Your task to perform on an android device: Go to CNN.com Image 0: 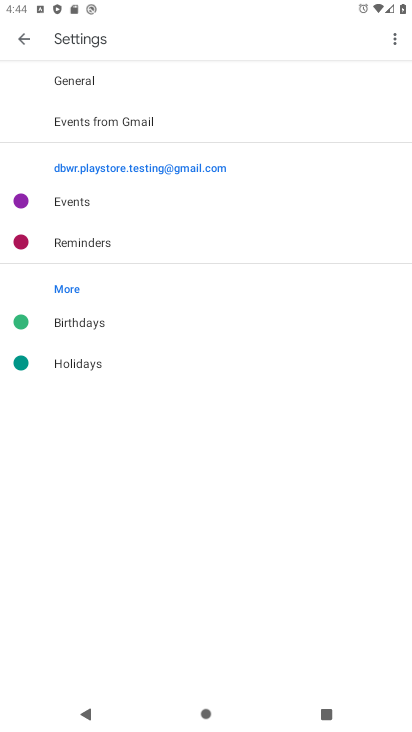
Step 0: press home button
Your task to perform on an android device: Go to CNN.com Image 1: 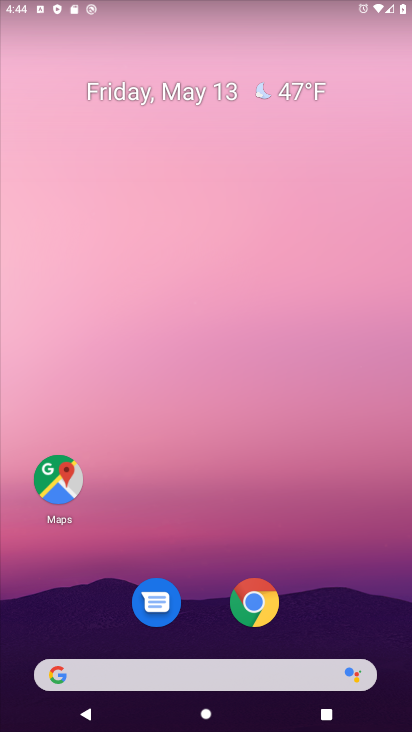
Step 1: drag from (194, 651) to (184, 199)
Your task to perform on an android device: Go to CNN.com Image 2: 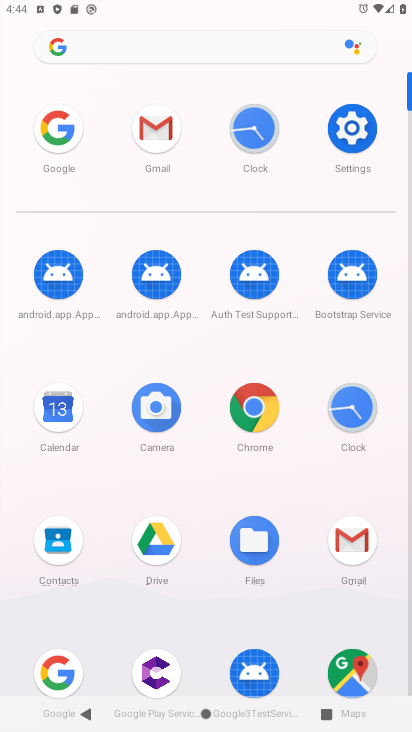
Step 2: click (58, 674)
Your task to perform on an android device: Go to CNN.com Image 3: 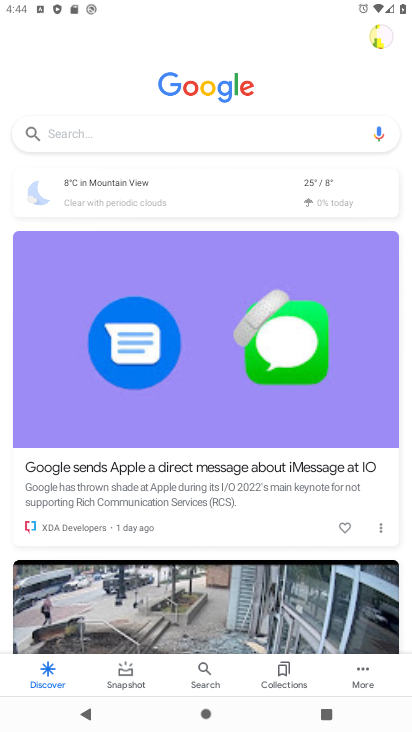
Step 3: click (118, 133)
Your task to perform on an android device: Go to CNN.com Image 4: 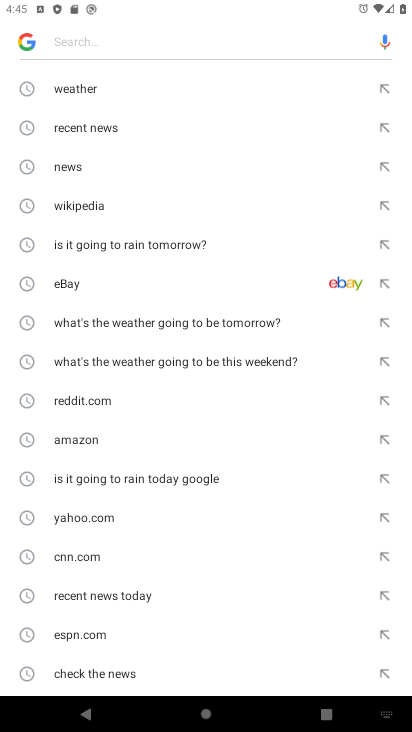
Step 4: drag from (116, 651) to (153, 302)
Your task to perform on an android device: Go to CNN.com Image 5: 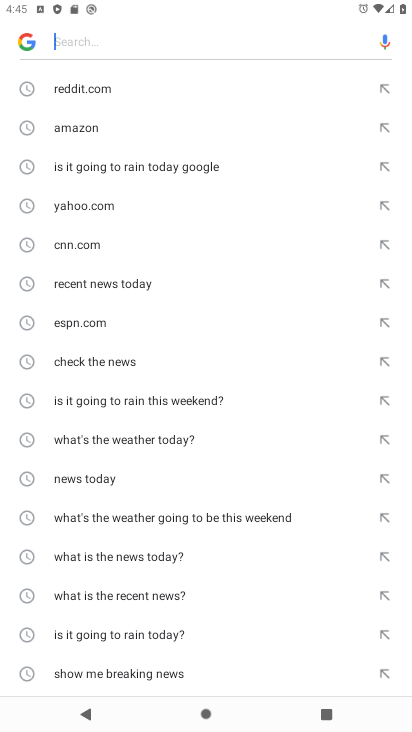
Step 5: click (106, 244)
Your task to perform on an android device: Go to CNN.com Image 6: 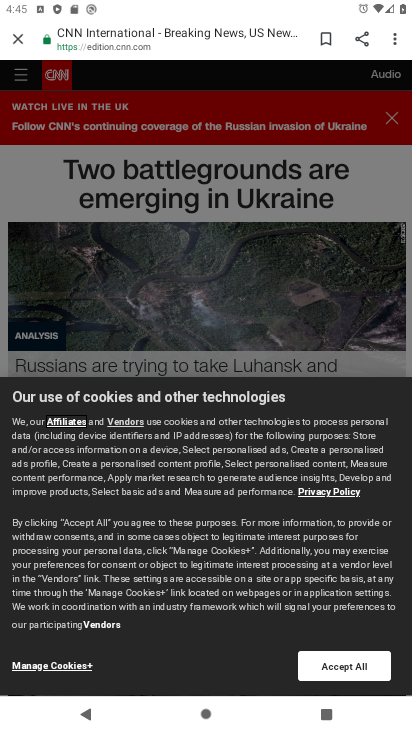
Step 6: task complete